Your task to perform on an android device: Open Yahoo.com Image 0: 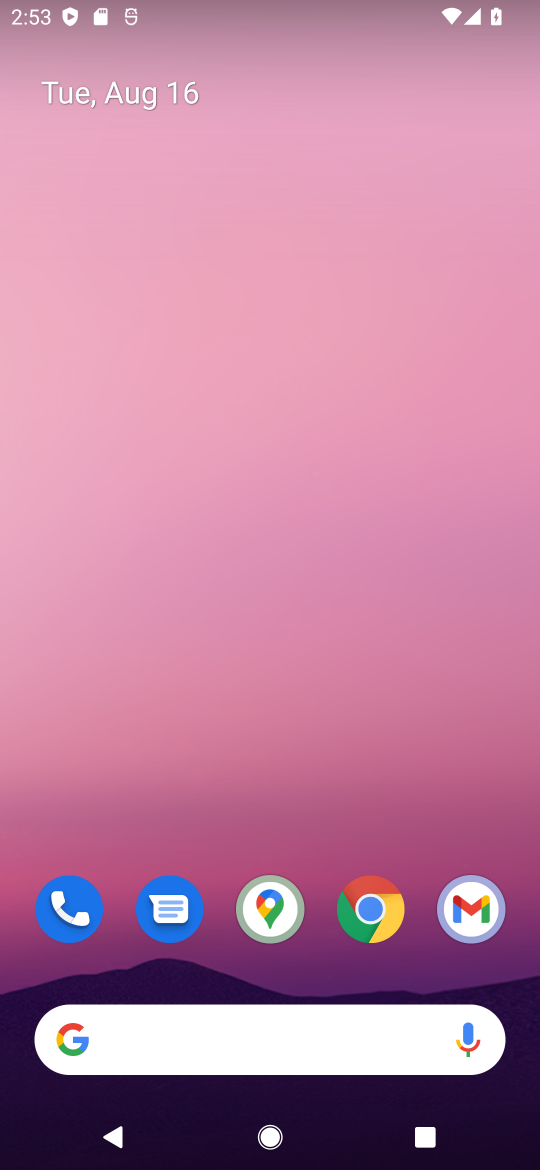
Step 0: click (369, 912)
Your task to perform on an android device: Open Yahoo.com Image 1: 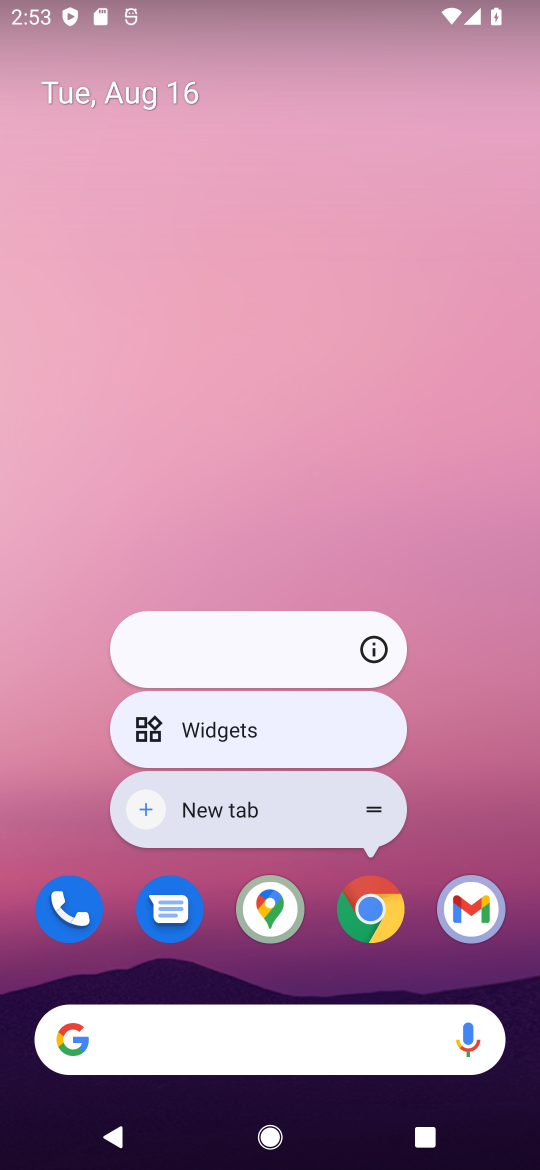
Step 1: click (381, 929)
Your task to perform on an android device: Open Yahoo.com Image 2: 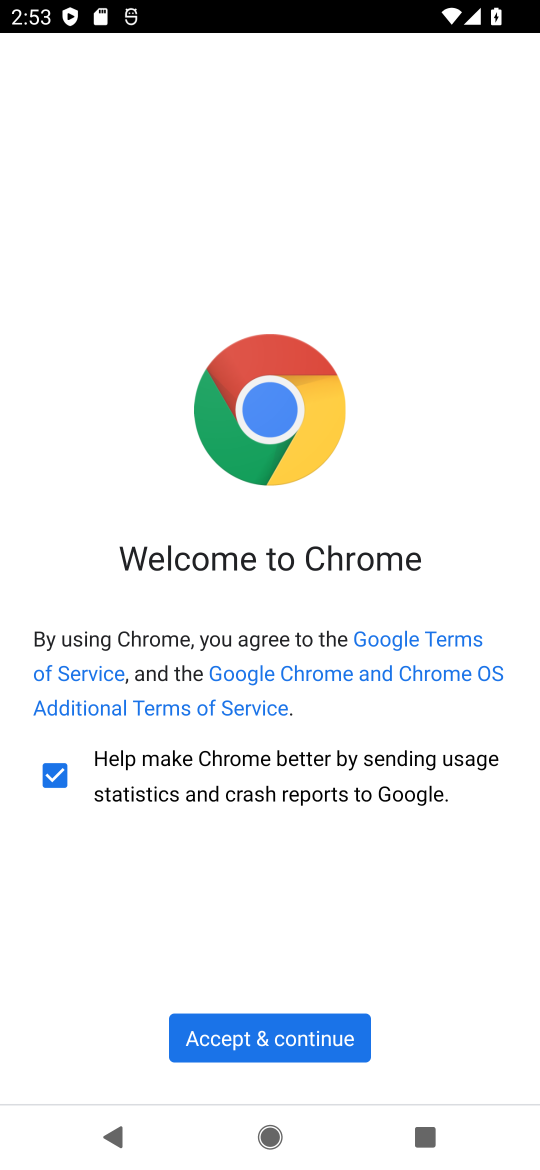
Step 2: click (284, 1052)
Your task to perform on an android device: Open Yahoo.com Image 3: 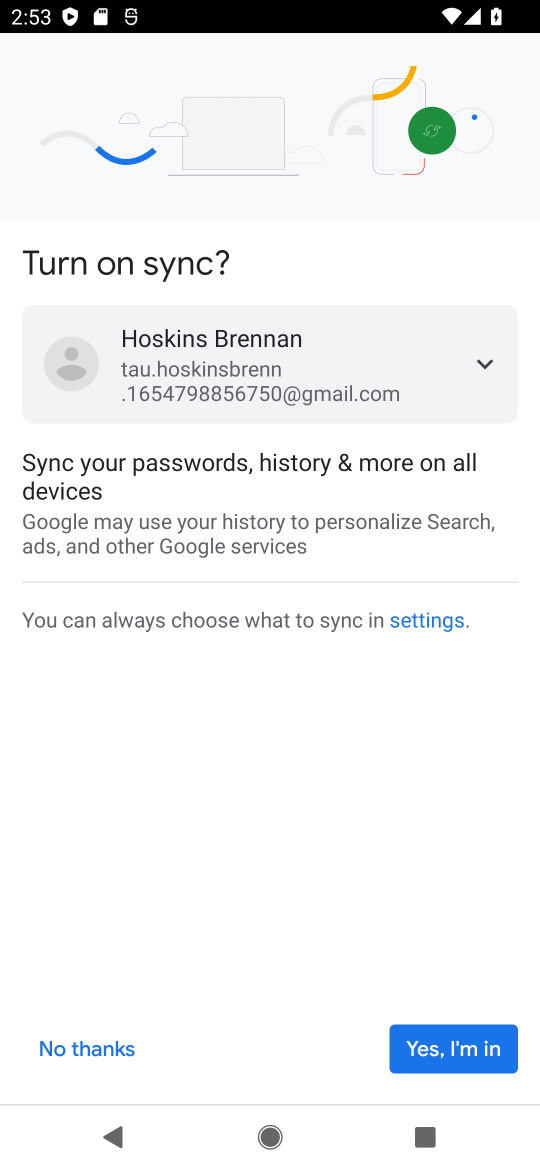
Step 3: click (467, 1061)
Your task to perform on an android device: Open Yahoo.com Image 4: 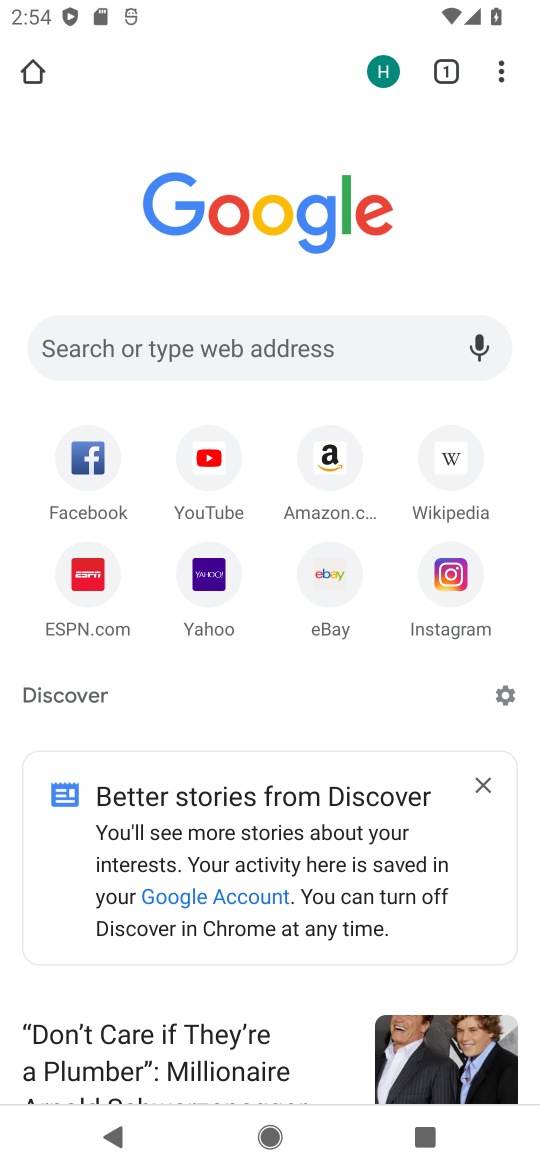
Step 4: click (220, 345)
Your task to perform on an android device: Open Yahoo.com Image 5: 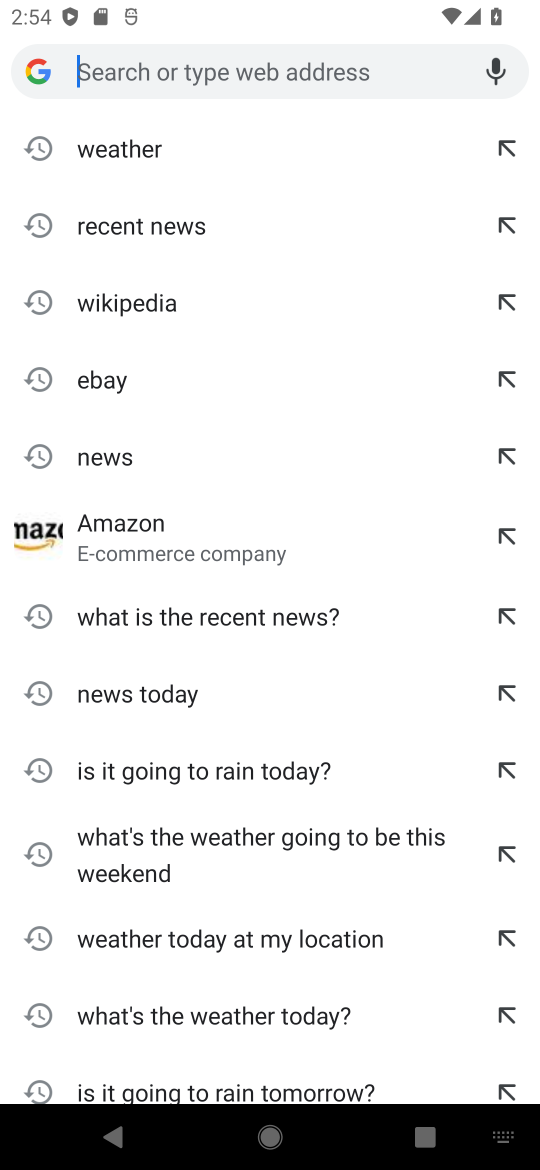
Step 5: type "www.yahoo.com"
Your task to perform on an android device: Open Yahoo.com Image 6: 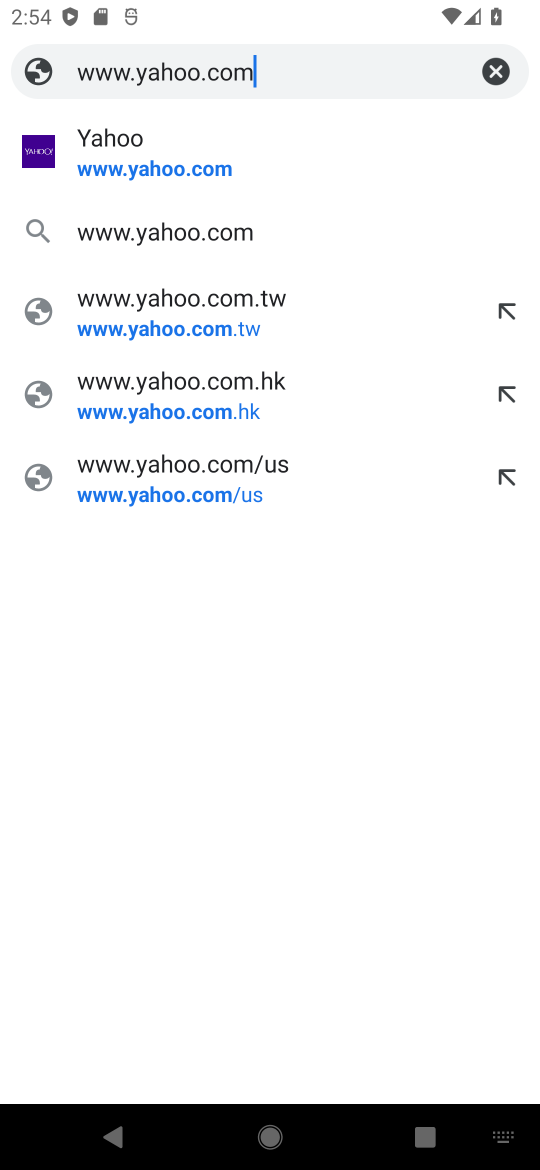
Step 6: click (100, 143)
Your task to perform on an android device: Open Yahoo.com Image 7: 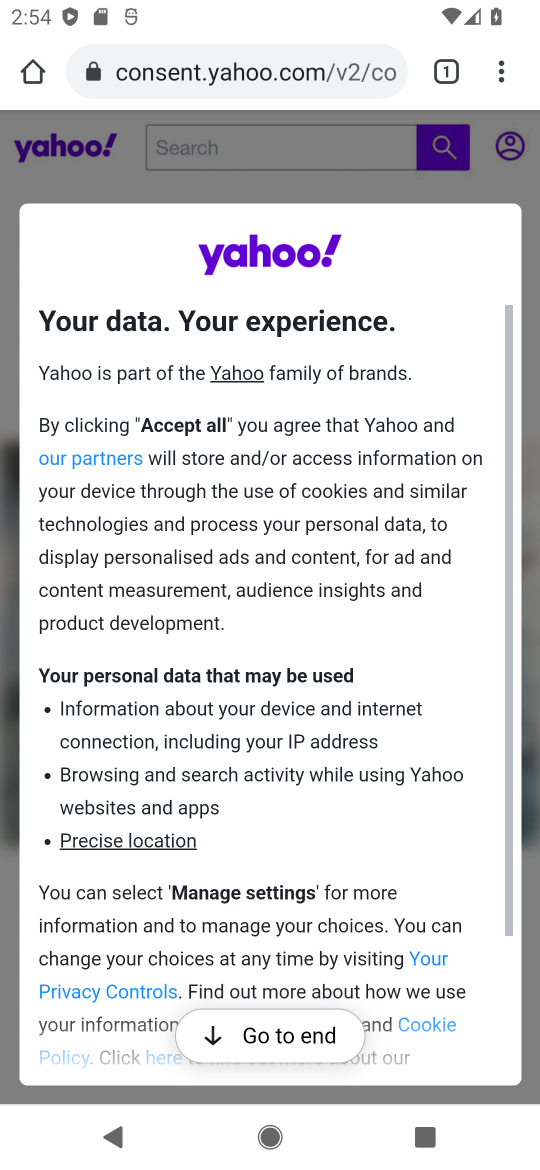
Step 7: task complete